Your task to perform on an android device: Search for Mexican restaurants on Maps Image 0: 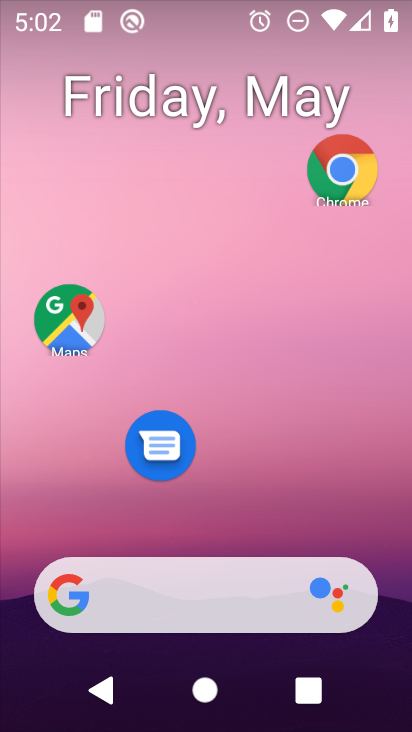
Step 0: click (56, 344)
Your task to perform on an android device: Search for Mexican restaurants on Maps Image 1: 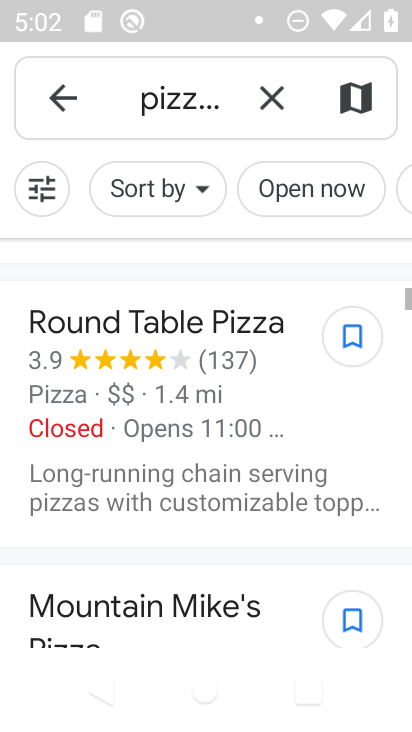
Step 1: click (267, 109)
Your task to perform on an android device: Search for Mexican restaurants on Maps Image 2: 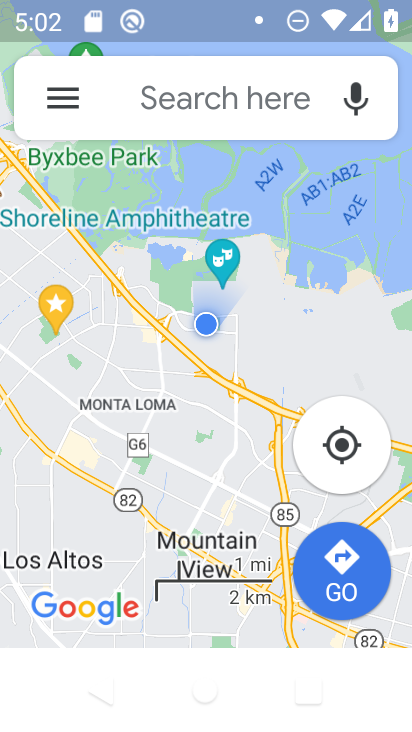
Step 2: click (228, 108)
Your task to perform on an android device: Search for Mexican restaurants on Maps Image 3: 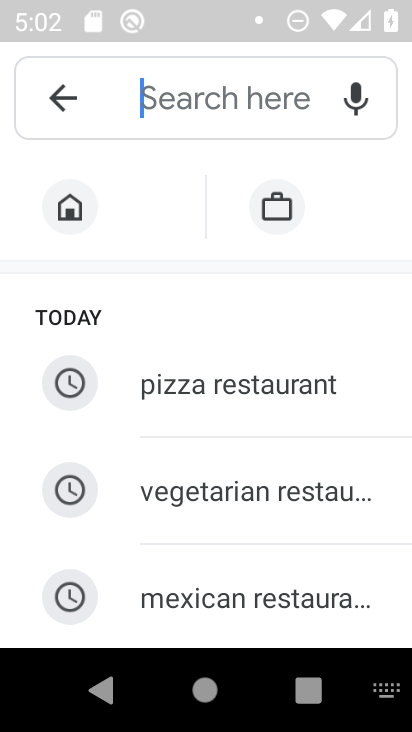
Step 3: click (243, 593)
Your task to perform on an android device: Search for Mexican restaurants on Maps Image 4: 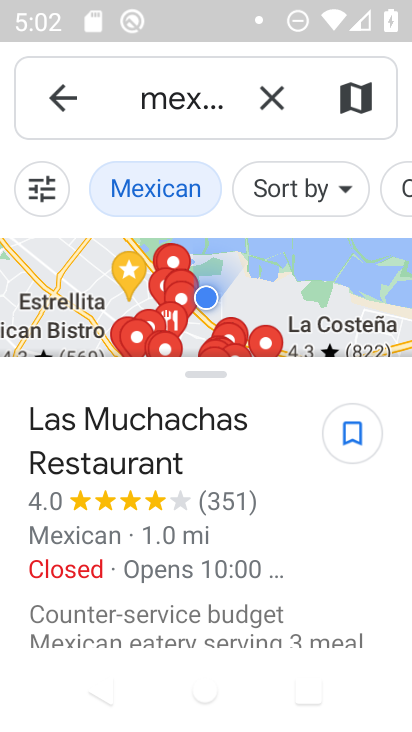
Step 4: task complete